Your task to perform on an android device: Go to Yahoo.com Image 0: 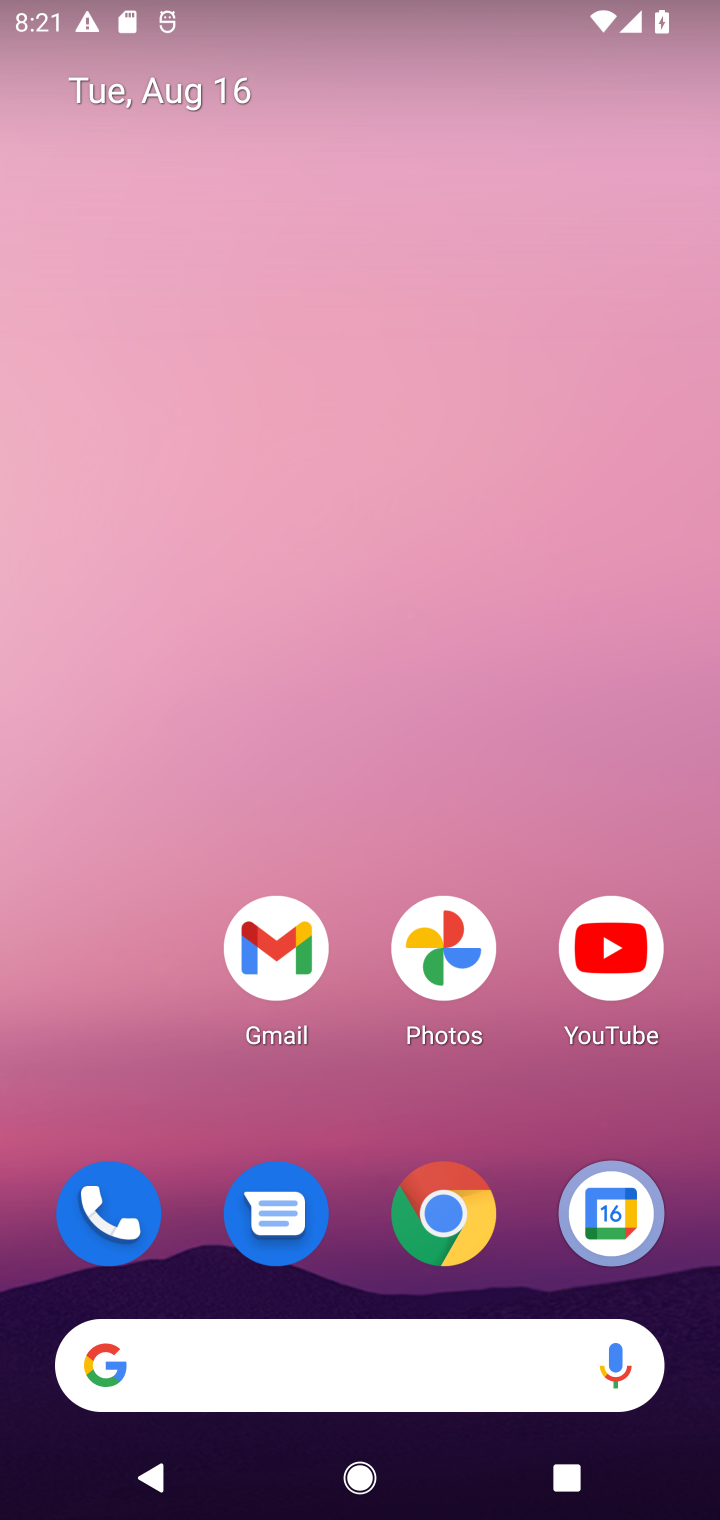
Step 0: click (434, 1213)
Your task to perform on an android device: Go to Yahoo.com Image 1: 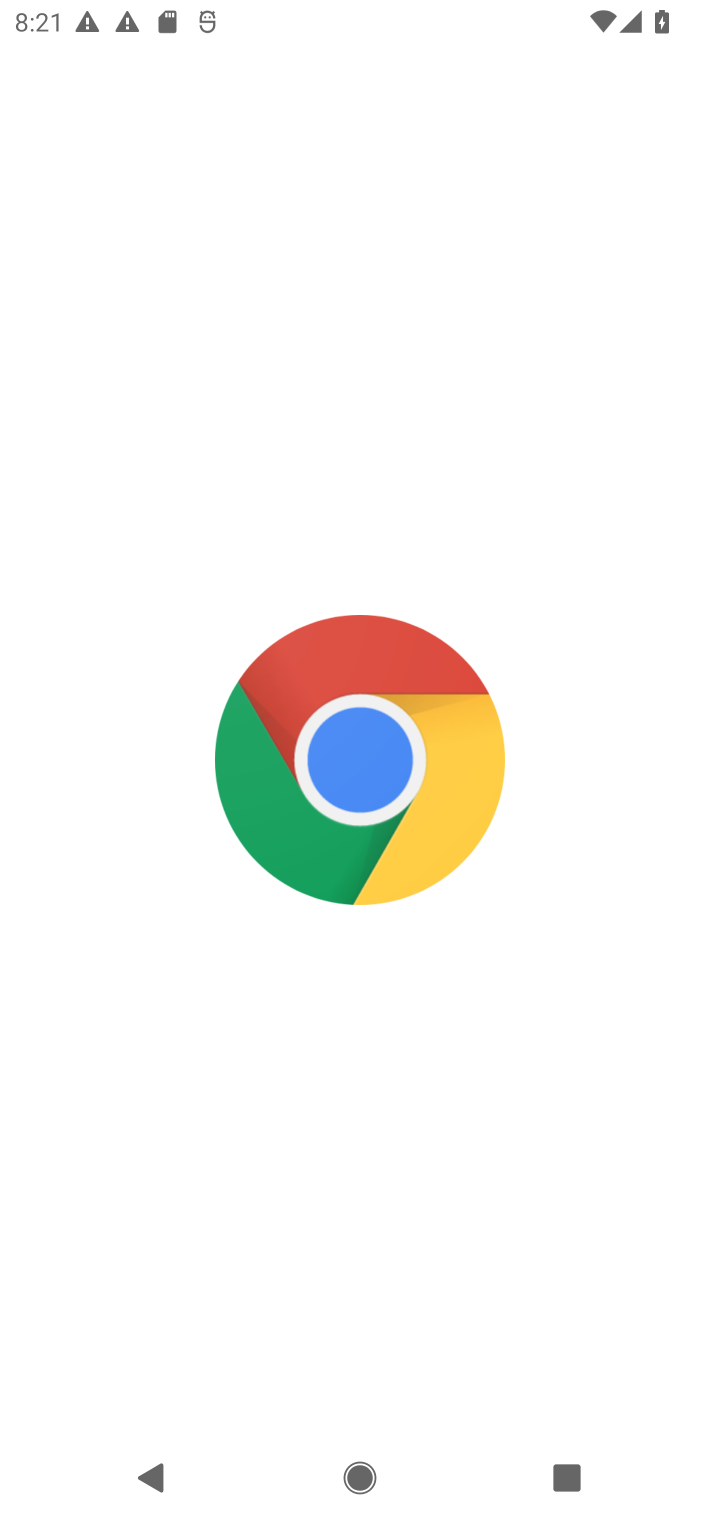
Step 1: click (375, 1346)
Your task to perform on an android device: Go to Yahoo.com Image 2: 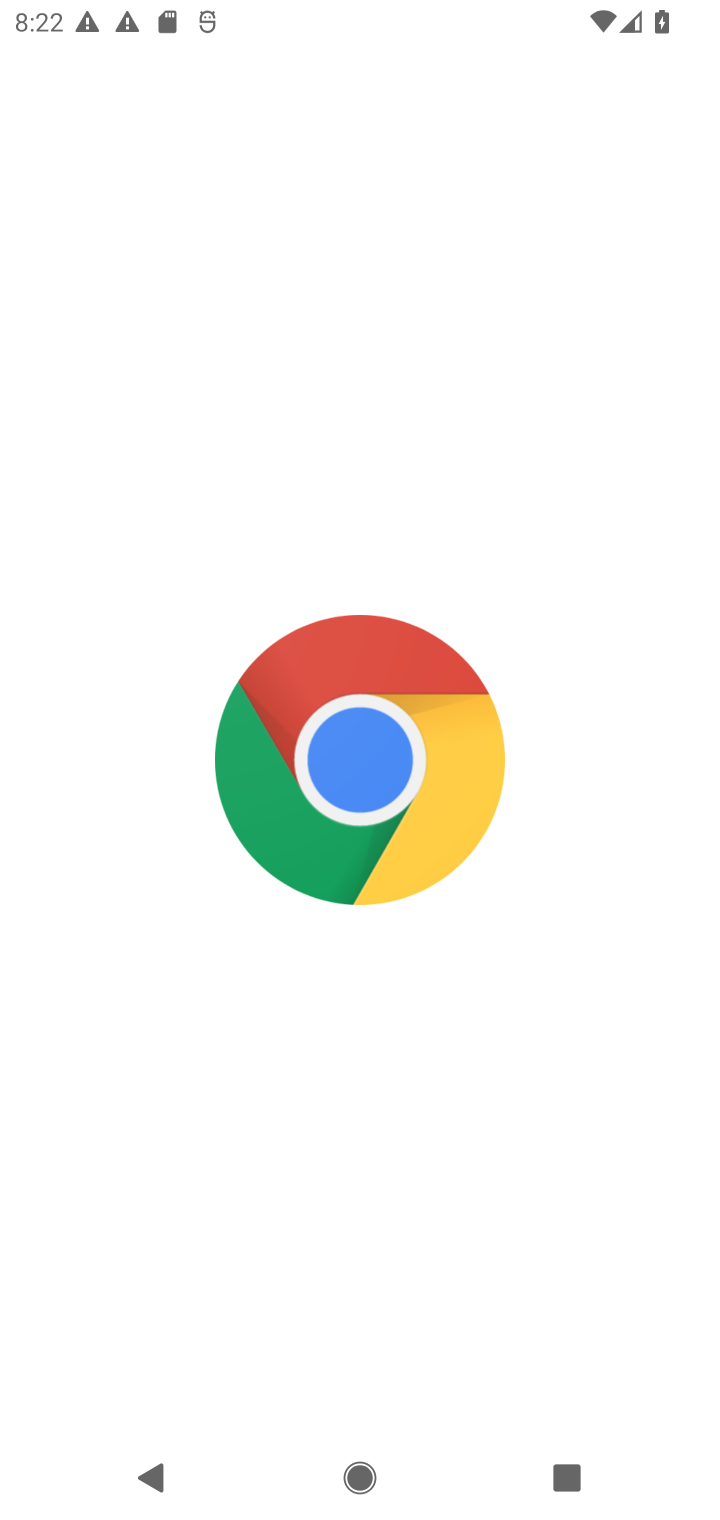
Step 2: click (396, 1338)
Your task to perform on an android device: Go to Yahoo.com Image 3: 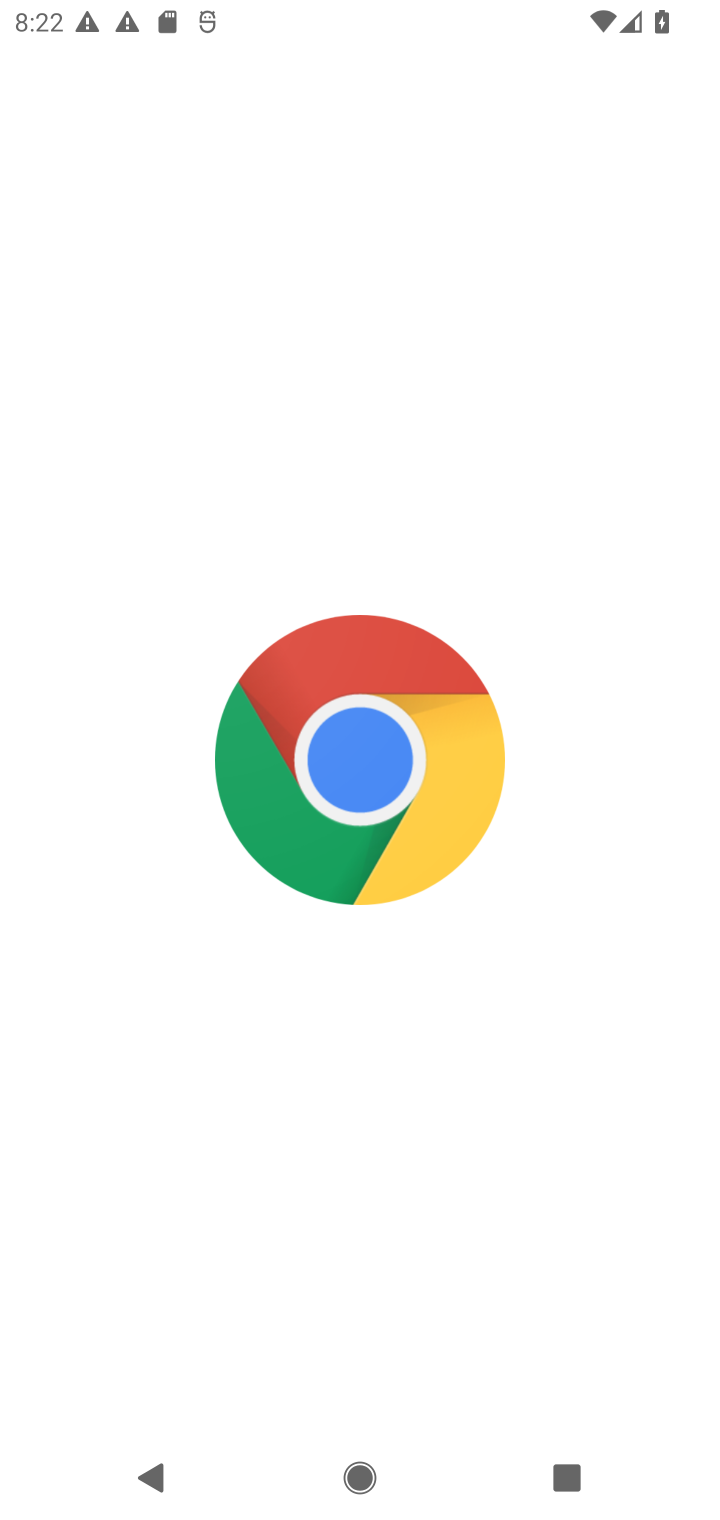
Step 3: click (610, 1309)
Your task to perform on an android device: Go to Yahoo.com Image 4: 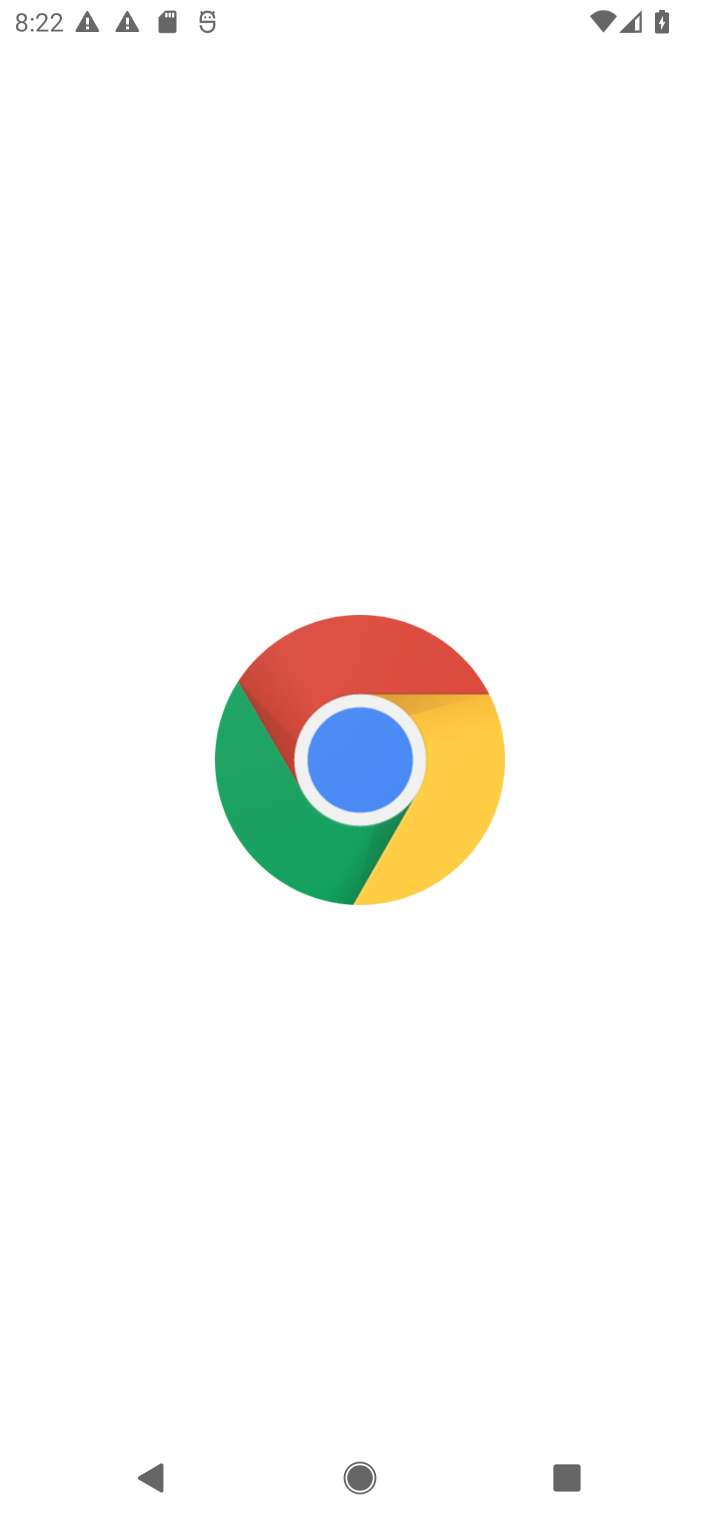
Step 4: click (610, 1309)
Your task to perform on an android device: Go to Yahoo.com Image 5: 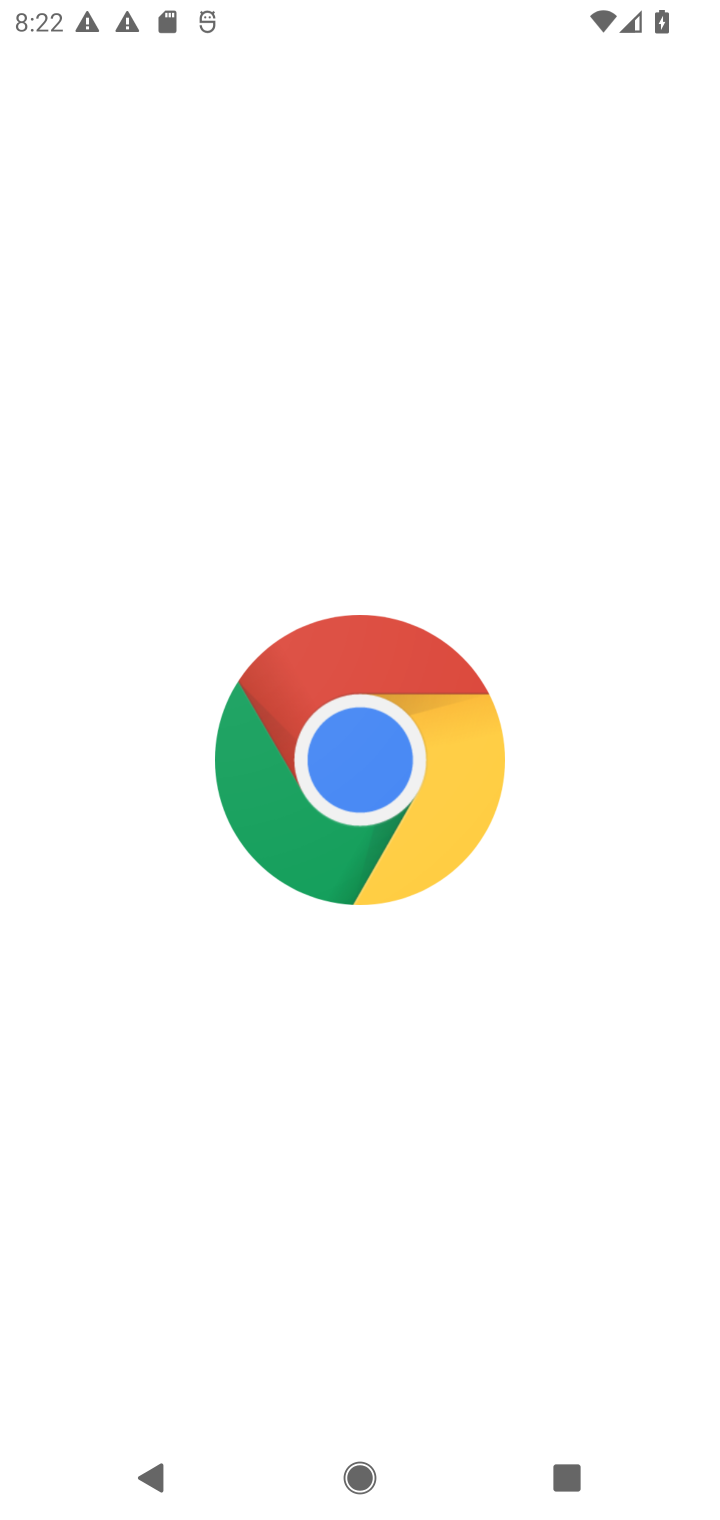
Step 5: click (610, 1309)
Your task to perform on an android device: Go to Yahoo.com Image 6: 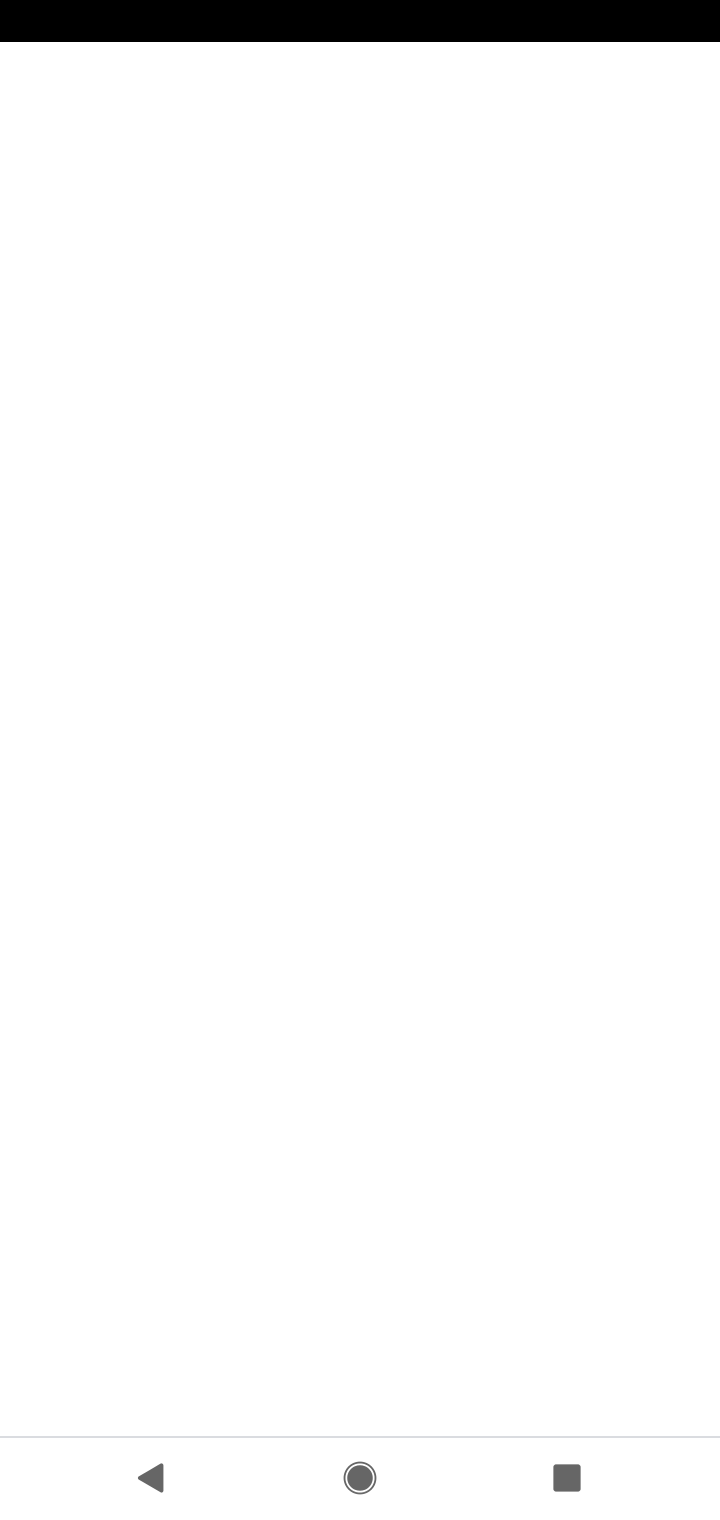
Step 6: click (590, 1328)
Your task to perform on an android device: Go to Yahoo.com Image 7: 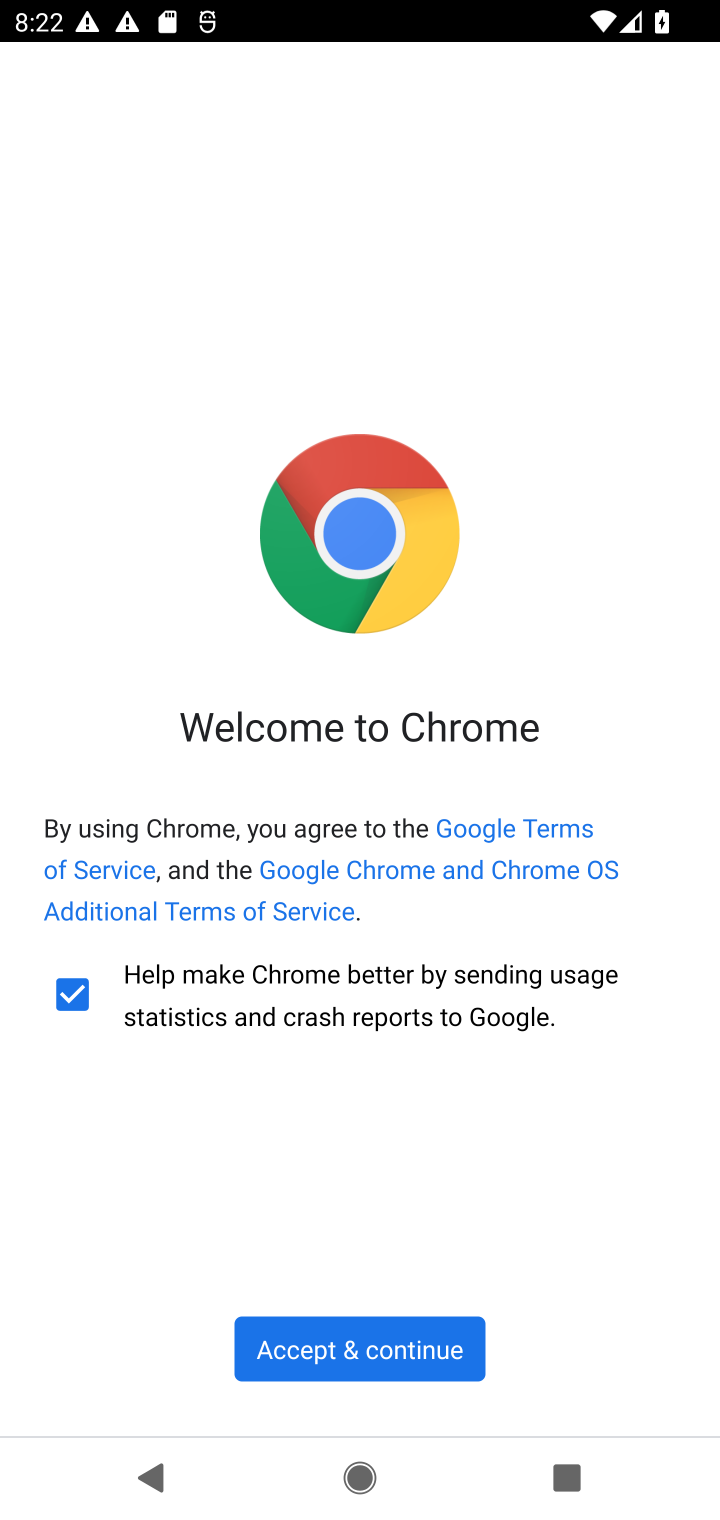
Step 7: click (376, 1350)
Your task to perform on an android device: Go to Yahoo.com Image 8: 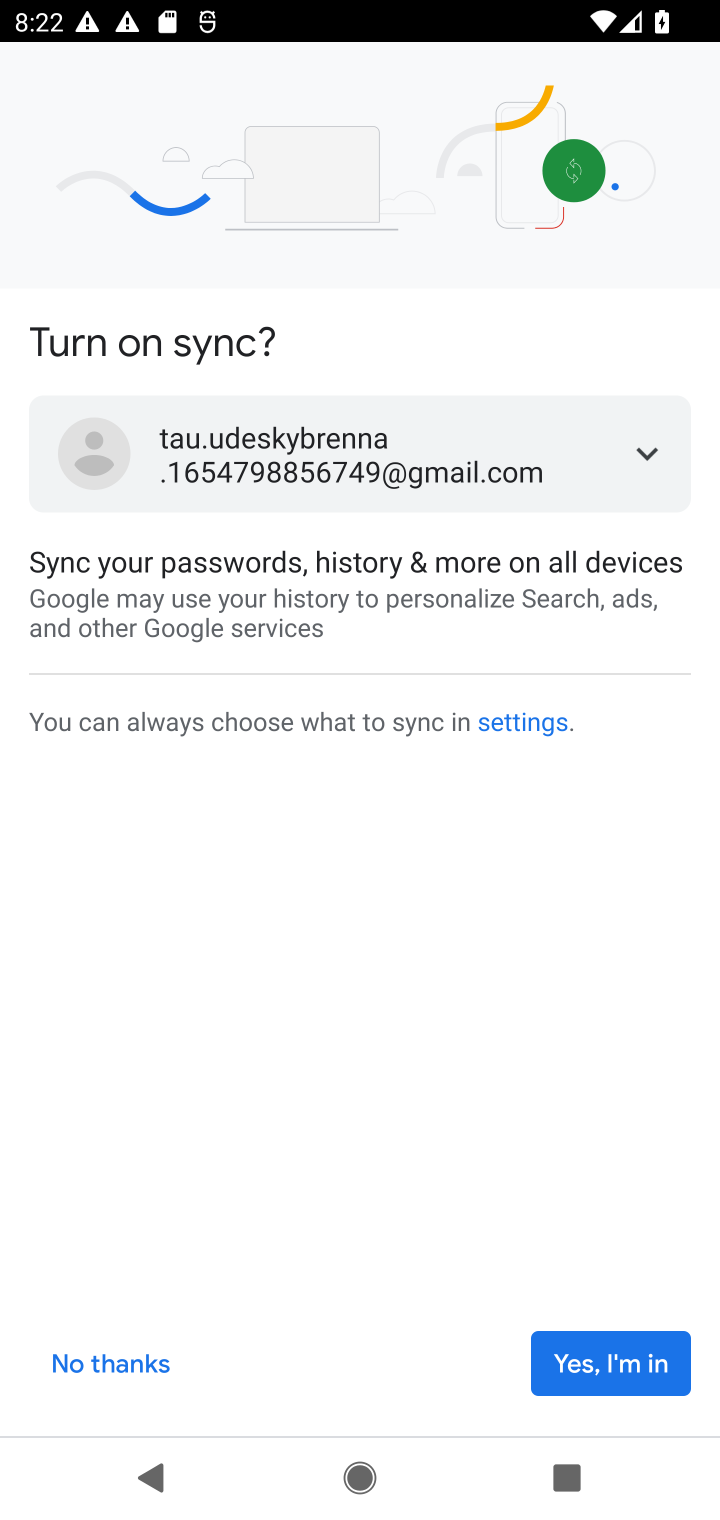
Step 8: click (612, 1345)
Your task to perform on an android device: Go to Yahoo.com Image 9: 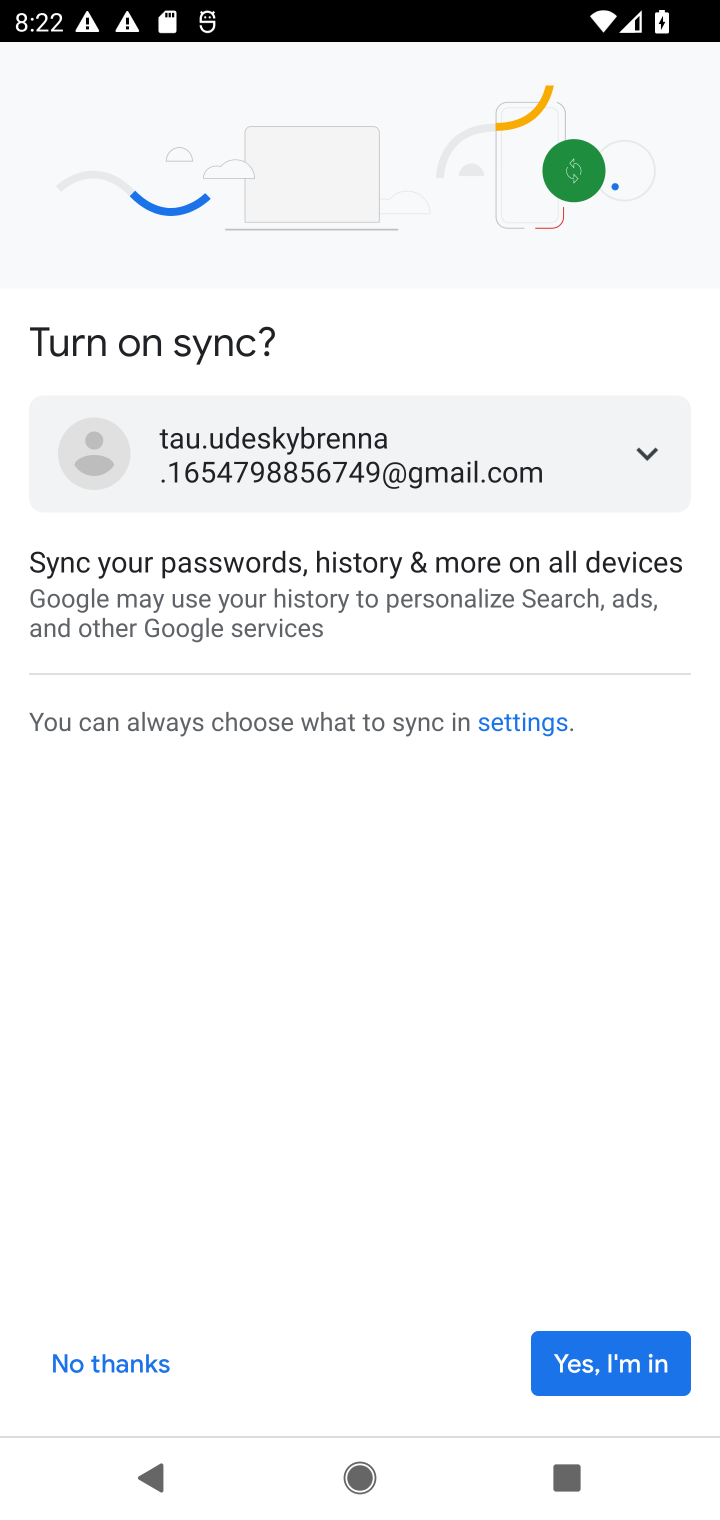
Step 9: click (612, 1359)
Your task to perform on an android device: Go to Yahoo.com Image 10: 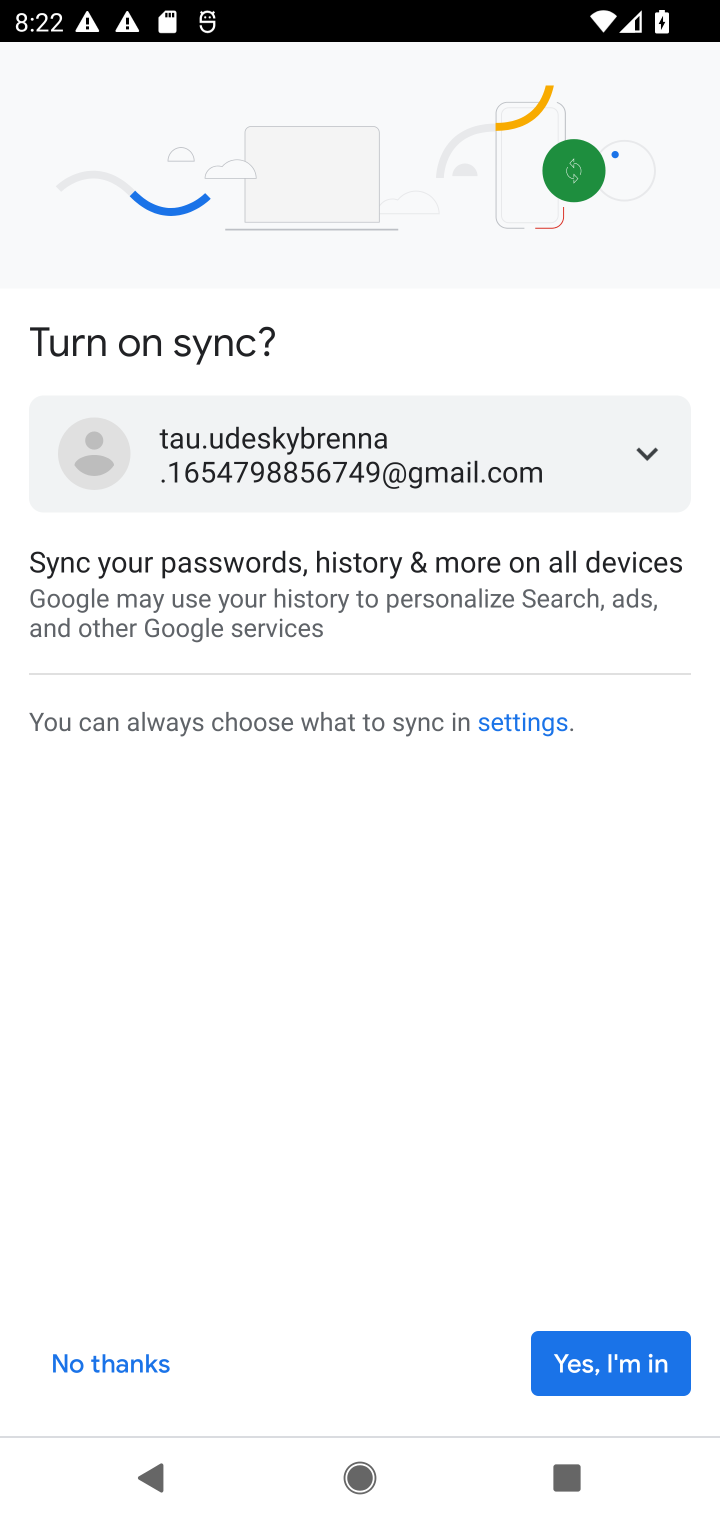
Step 10: click (612, 1359)
Your task to perform on an android device: Go to Yahoo.com Image 11: 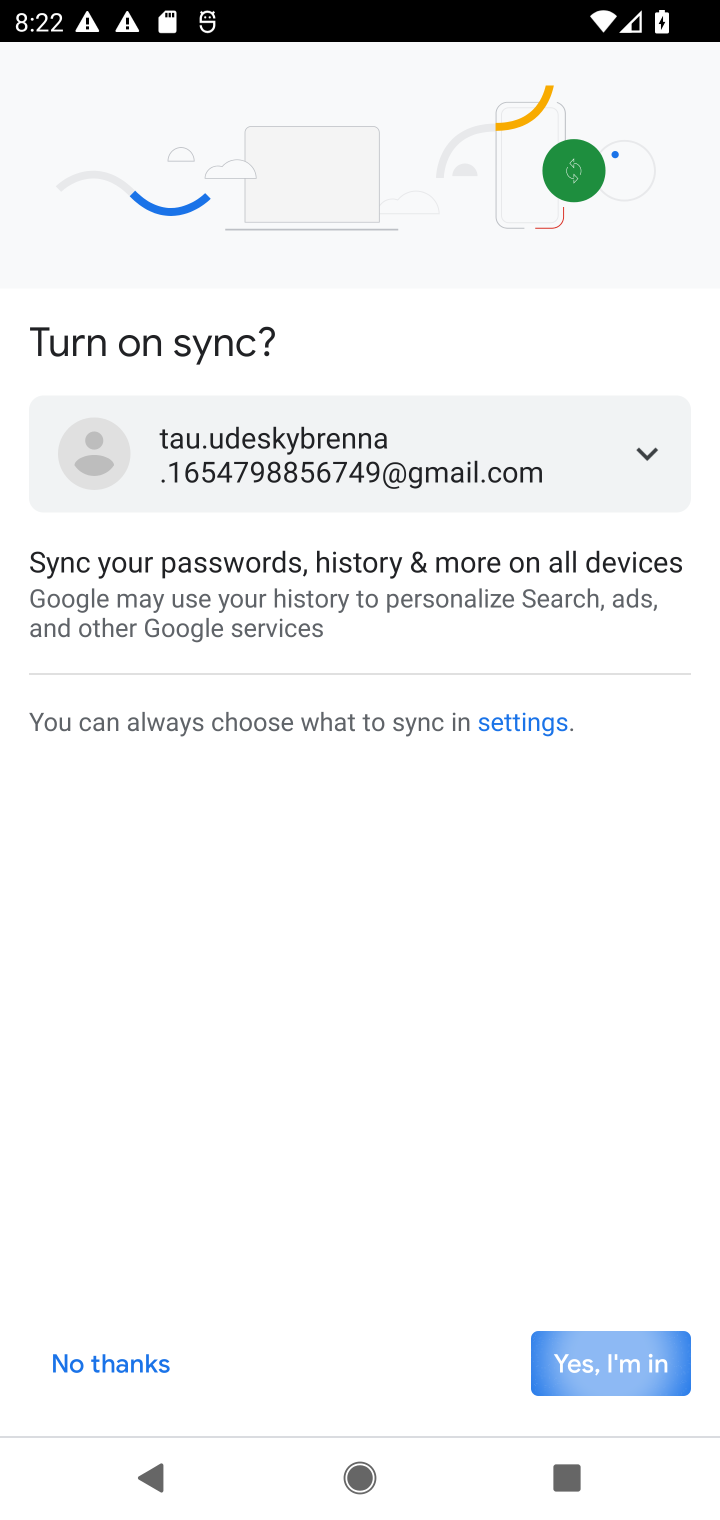
Step 11: click (612, 1359)
Your task to perform on an android device: Go to Yahoo.com Image 12: 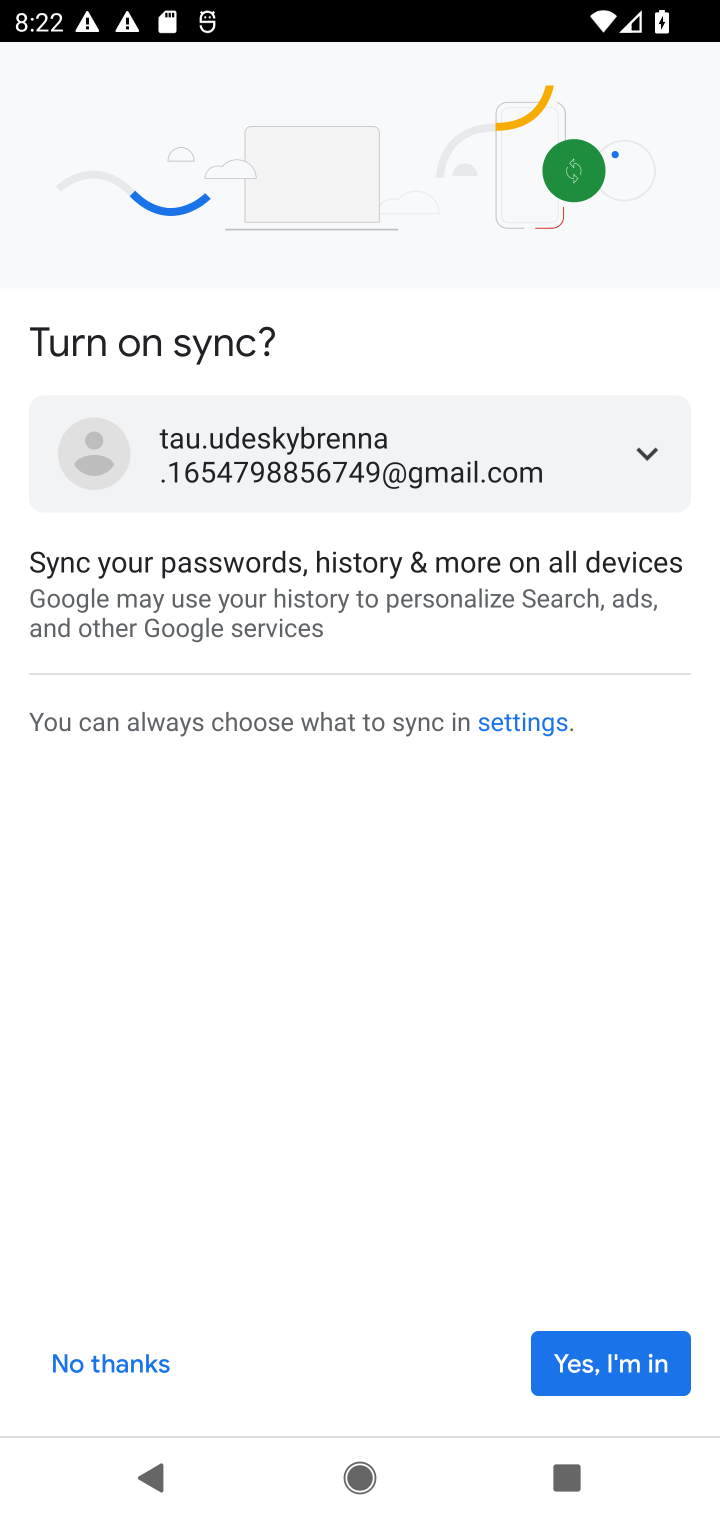
Step 12: click (561, 1343)
Your task to perform on an android device: Go to Yahoo.com Image 13: 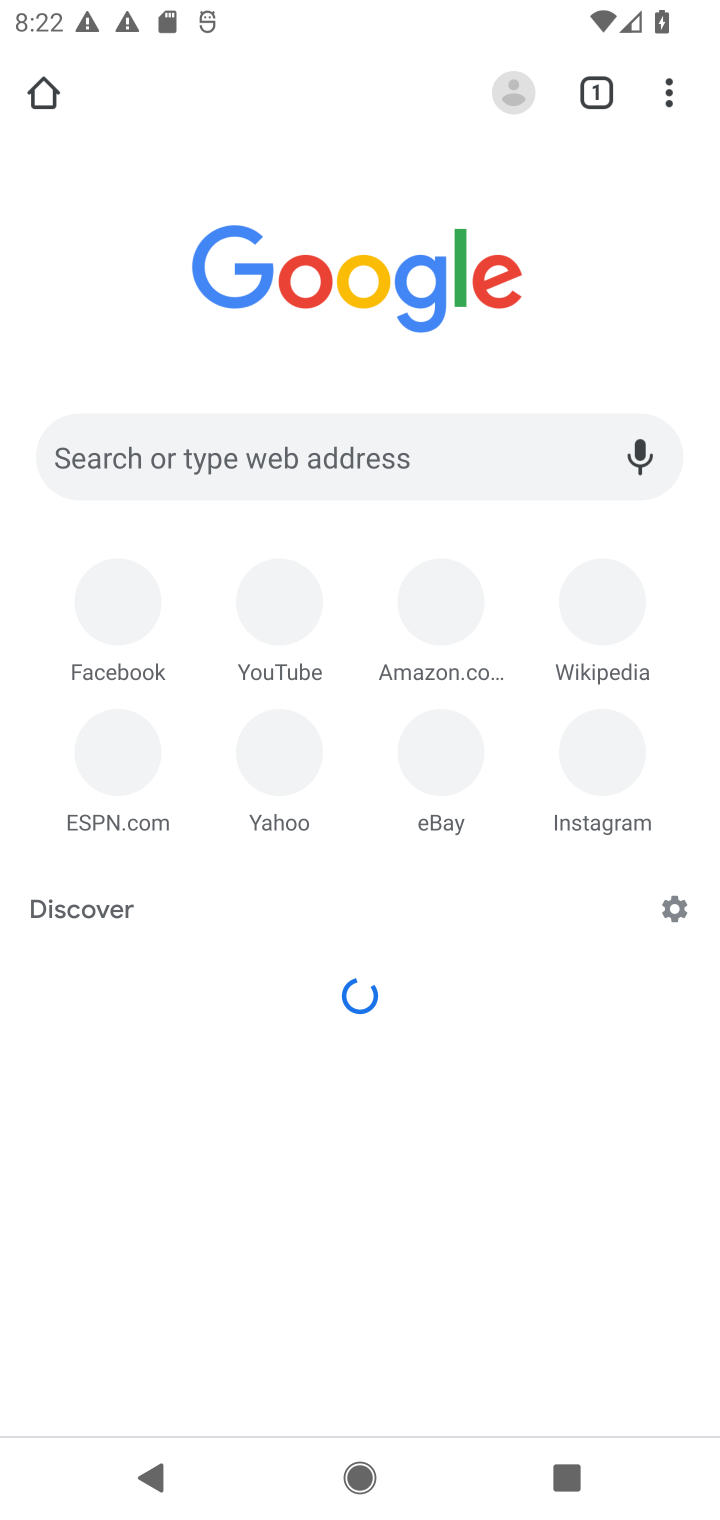
Step 13: click (561, 1343)
Your task to perform on an android device: Go to Yahoo.com Image 14: 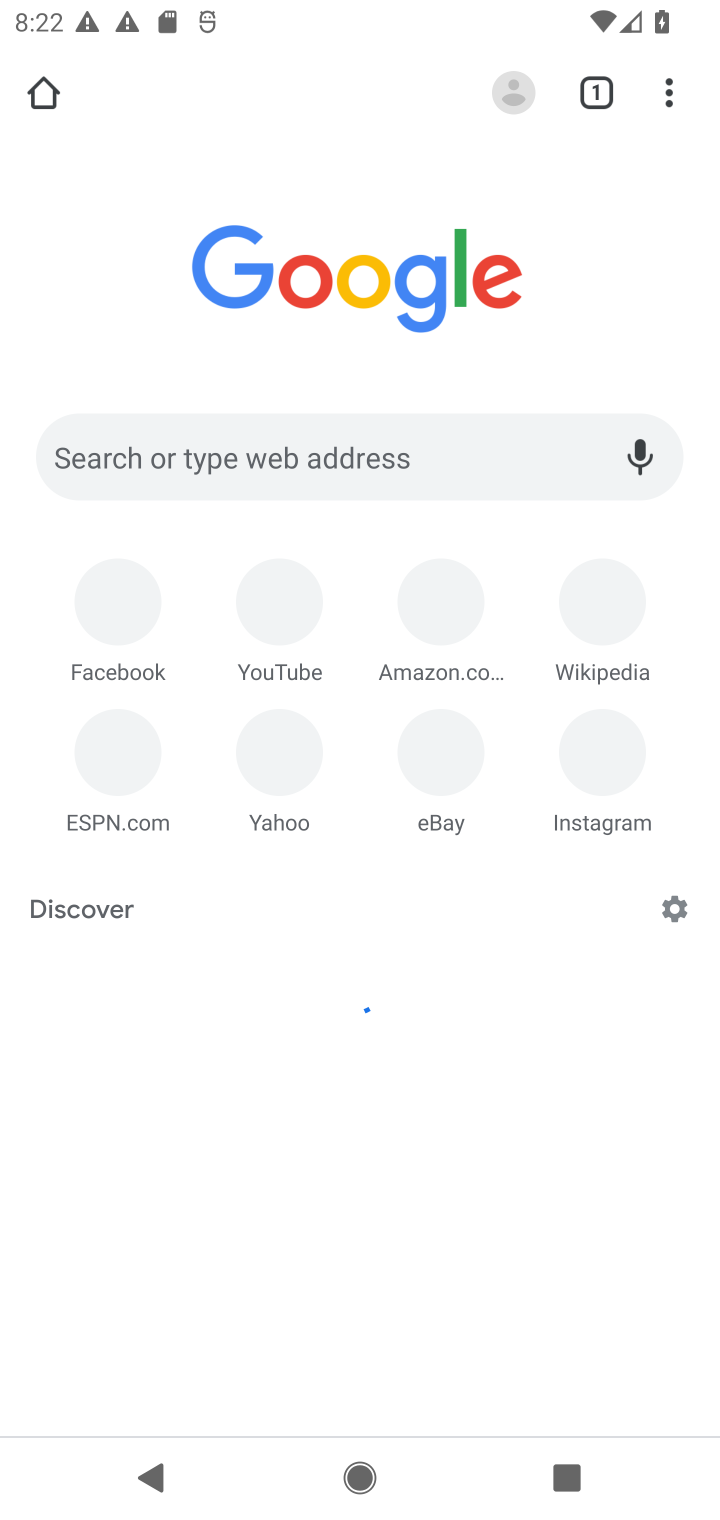
Step 14: click (561, 1343)
Your task to perform on an android device: Go to Yahoo.com Image 15: 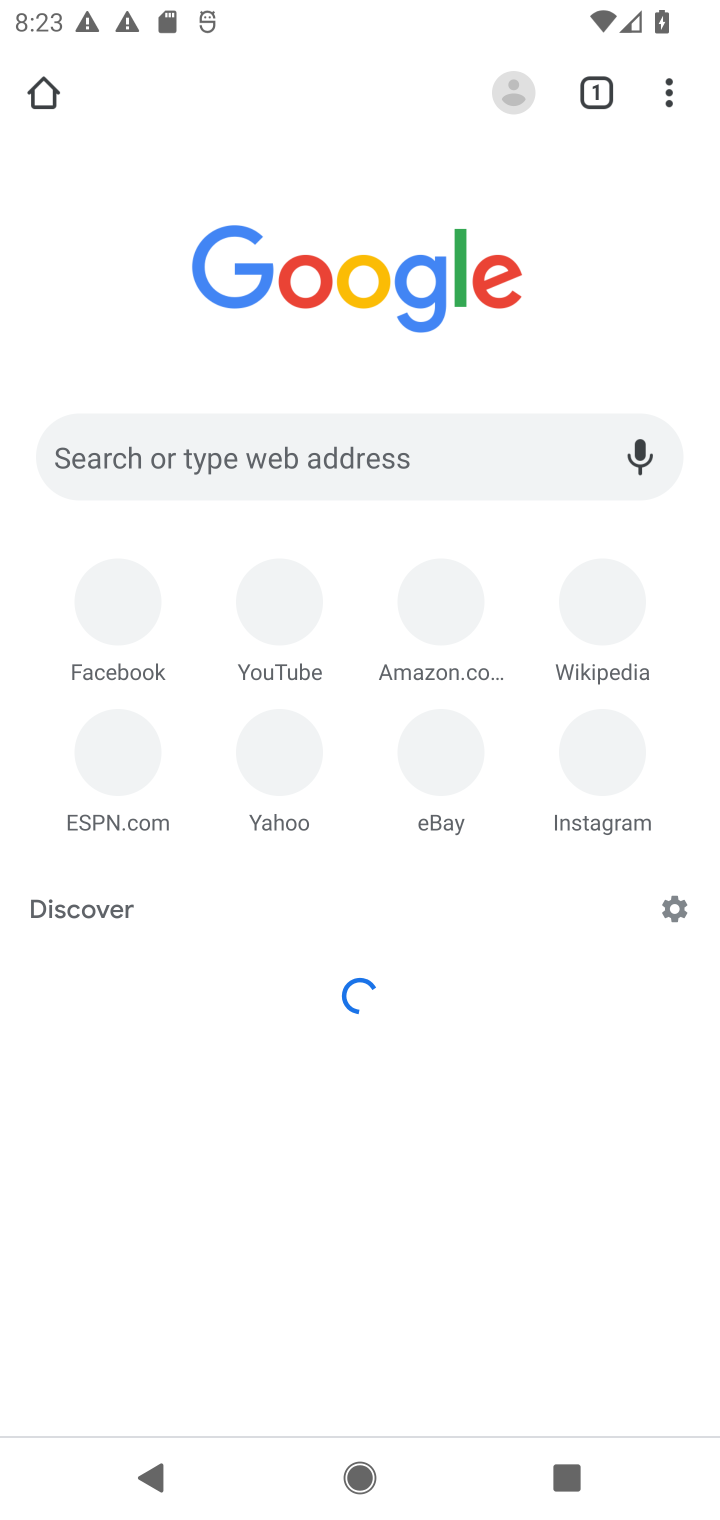
Step 15: click (264, 769)
Your task to perform on an android device: Go to Yahoo.com Image 16: 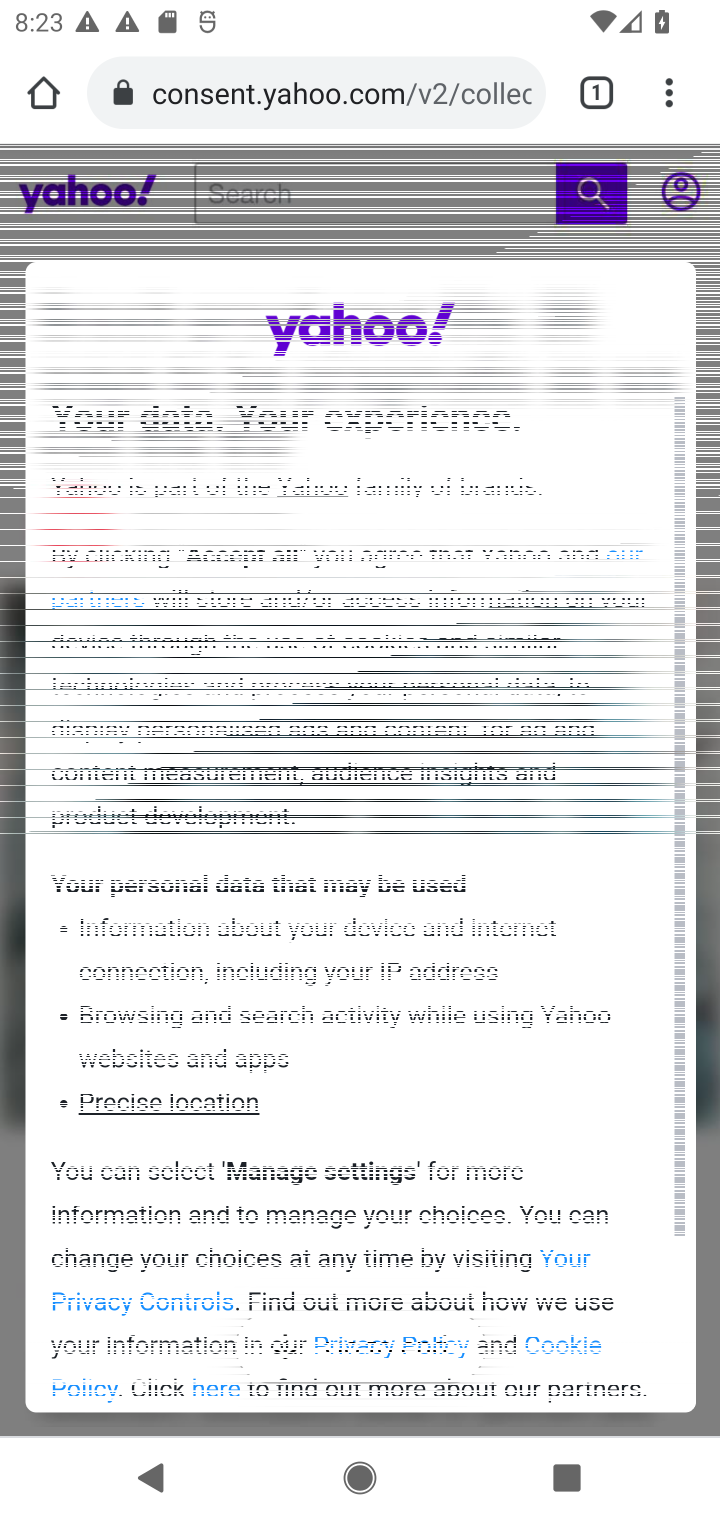
Step 16: task complete